Your task to perform on an android device: toggle wifi Image 0: 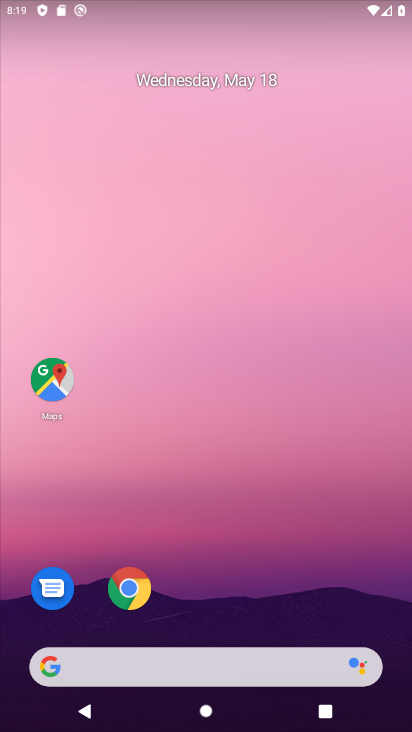
Step 0: drag from (246, 628) to (272, 2)
Your task to perform on an android device: toggle wifi Image 1: 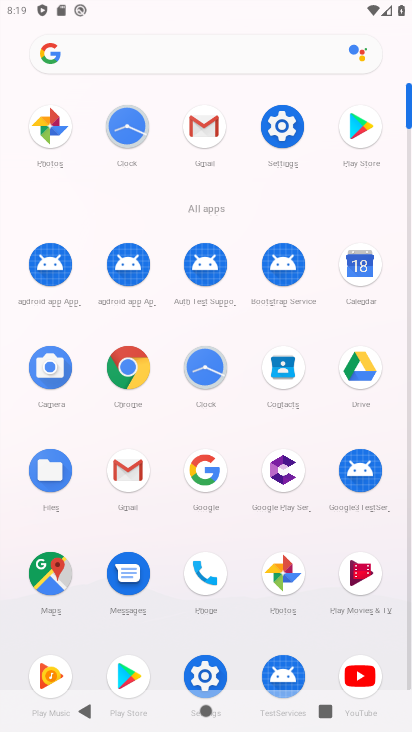
Step 1: click (280, 118)
Your task to perform on an android device: toggle wifi Image 2: 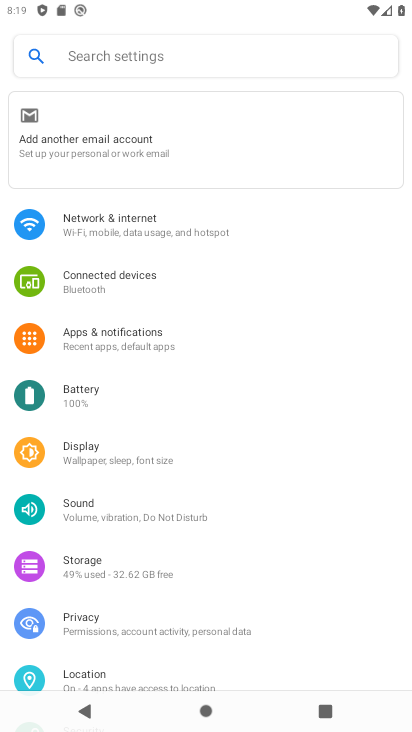
Step 2: click (110, 224)
Your task to perform on an android device: toggle wifi Image 3: 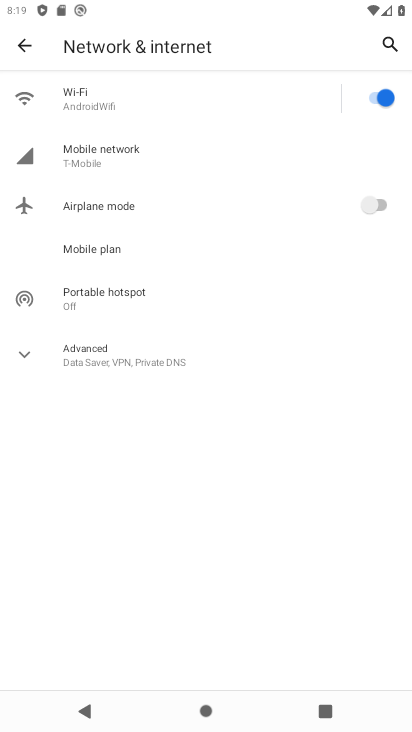
Step 3: click (382, 108)
Your task to perform on an android device: toggle wifi Image 4: 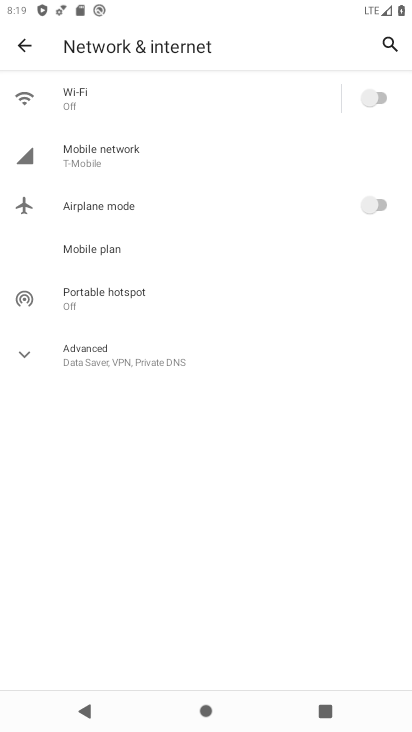
Step 4: task complete